Your task to perform on an android device: Search for Mexican restaurants on Maps Image 0: 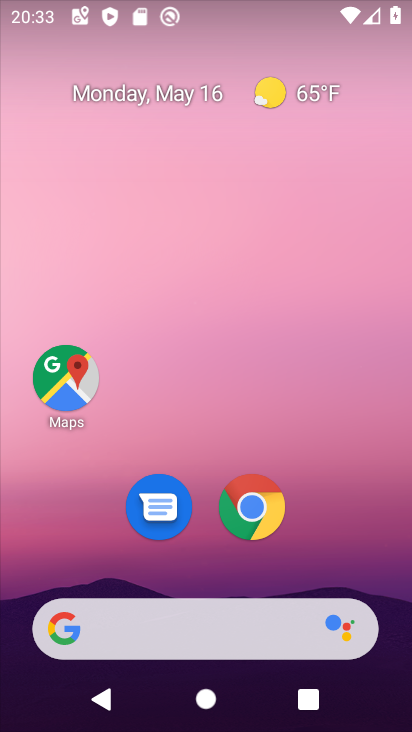
Step 0: click (71, 378)
Your task to perform on an android device: Search for Mexican restaurants on Maps Image 1: 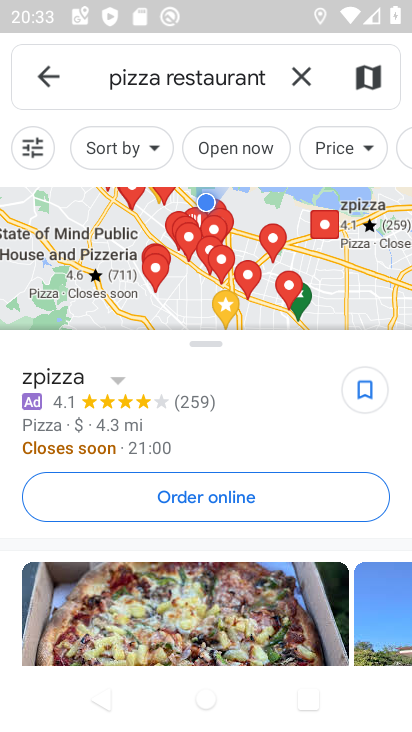
Step 1: click (304, 76)
Your task to perform on an android device: Search for Mexican restaurants on Maps Image 2: 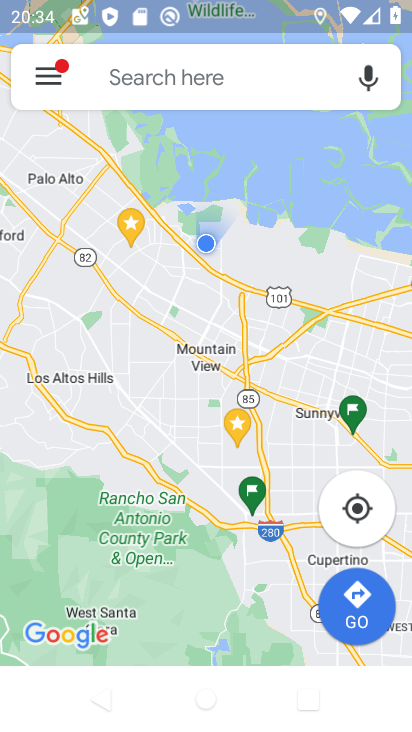
Step 2: click (267, 70)
Your task to perform on an android device: Search for Mexican restaurants on Maps Image 3: 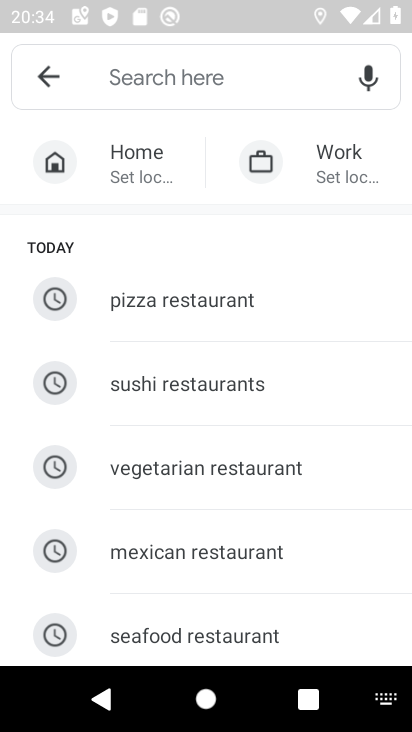
Step 3: click (238, 542)
Your task to perform on an android device: Search for Mexican restaurants on Maps Image 4: 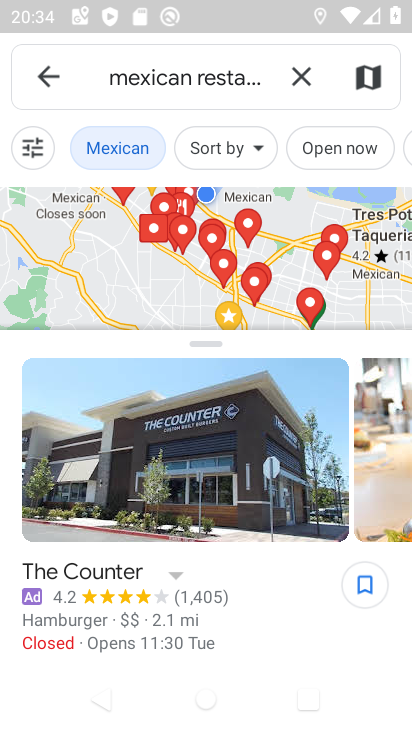
Step 4: task complete